Your task to perform on an android device: Open maps Image 0: 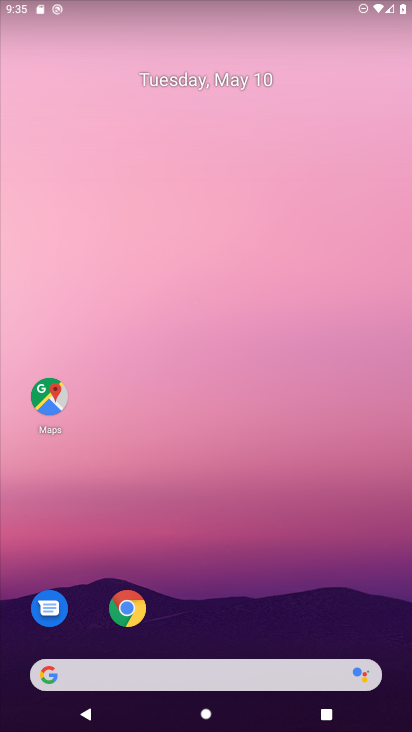
Step 0: drag from (406, 666) to (254, 116)
Your task to perform on an android device: Open maps Image 1: 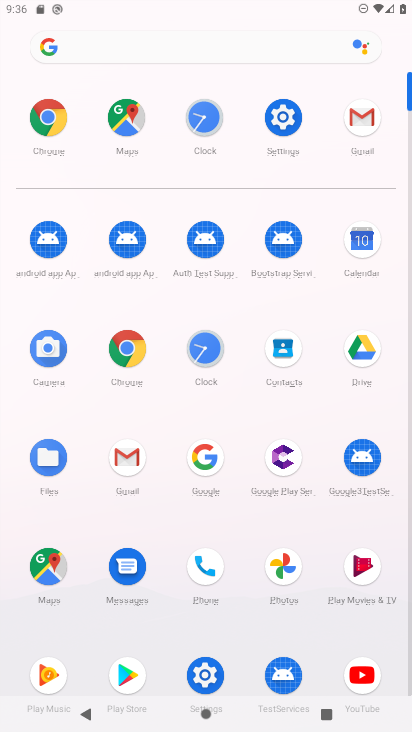
Step 1: click (37, 577)
Your task to perform on an android device: Open maps Image 2: 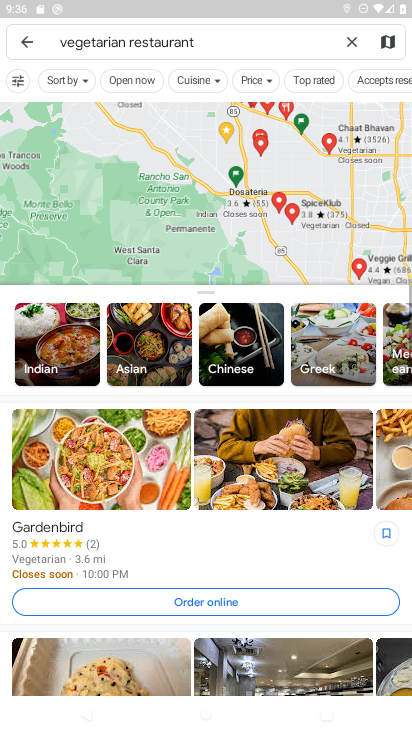
Step 2: click (344, 48)
Your task to perform on an android device: Open maps Image 3: 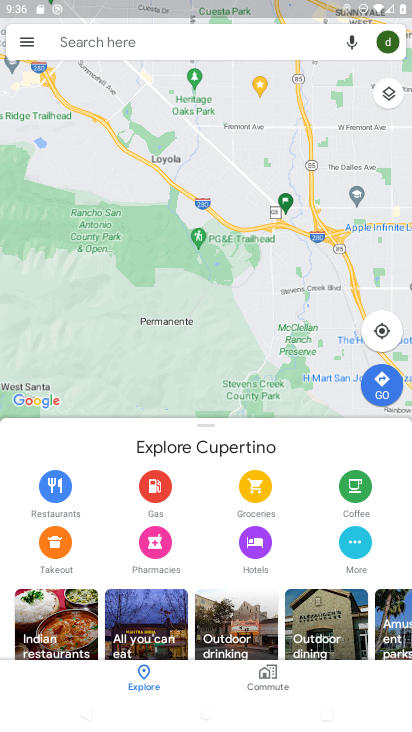
Step 3: task complete